Your task to perform on an android device: Check the latest 3D printers on Target. Image 0: 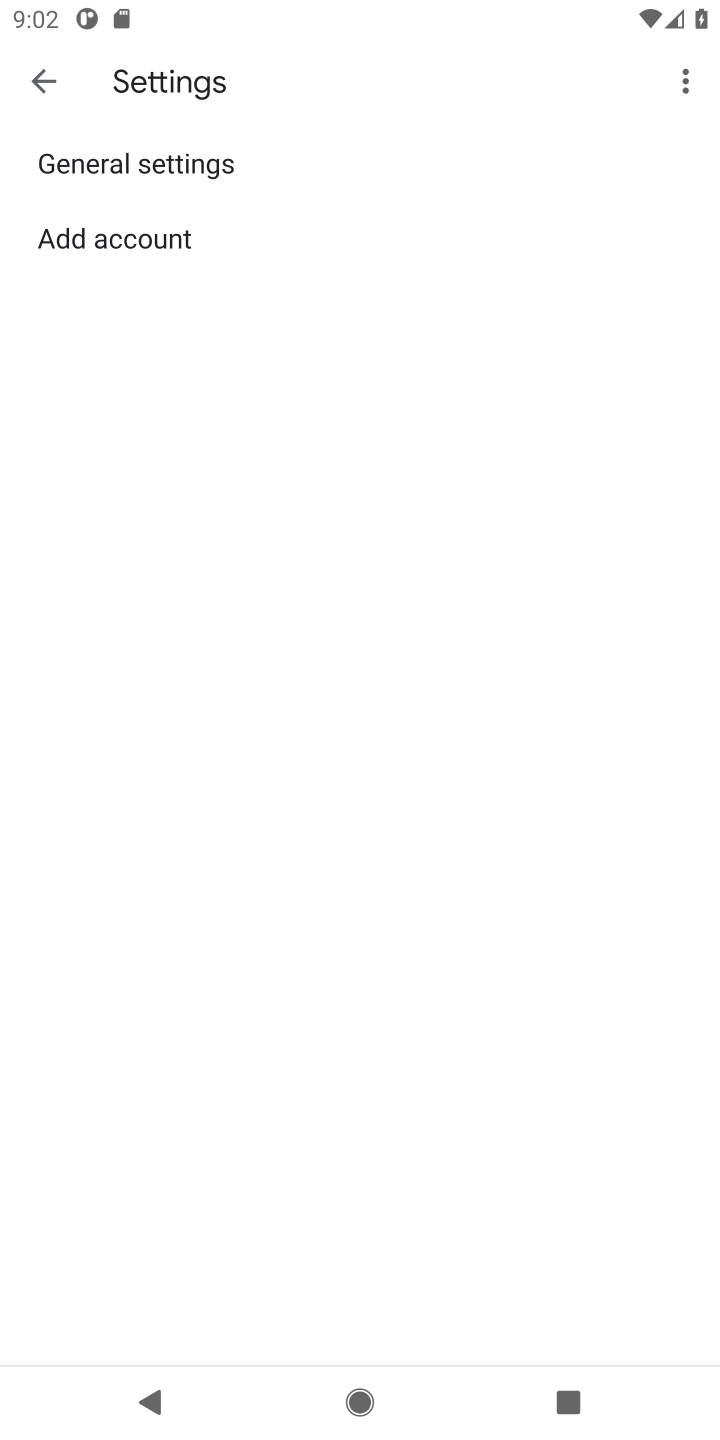
Step 0: press home button
Your task to perform on an android device: Check the latest 3D printers on Target. Image 1: 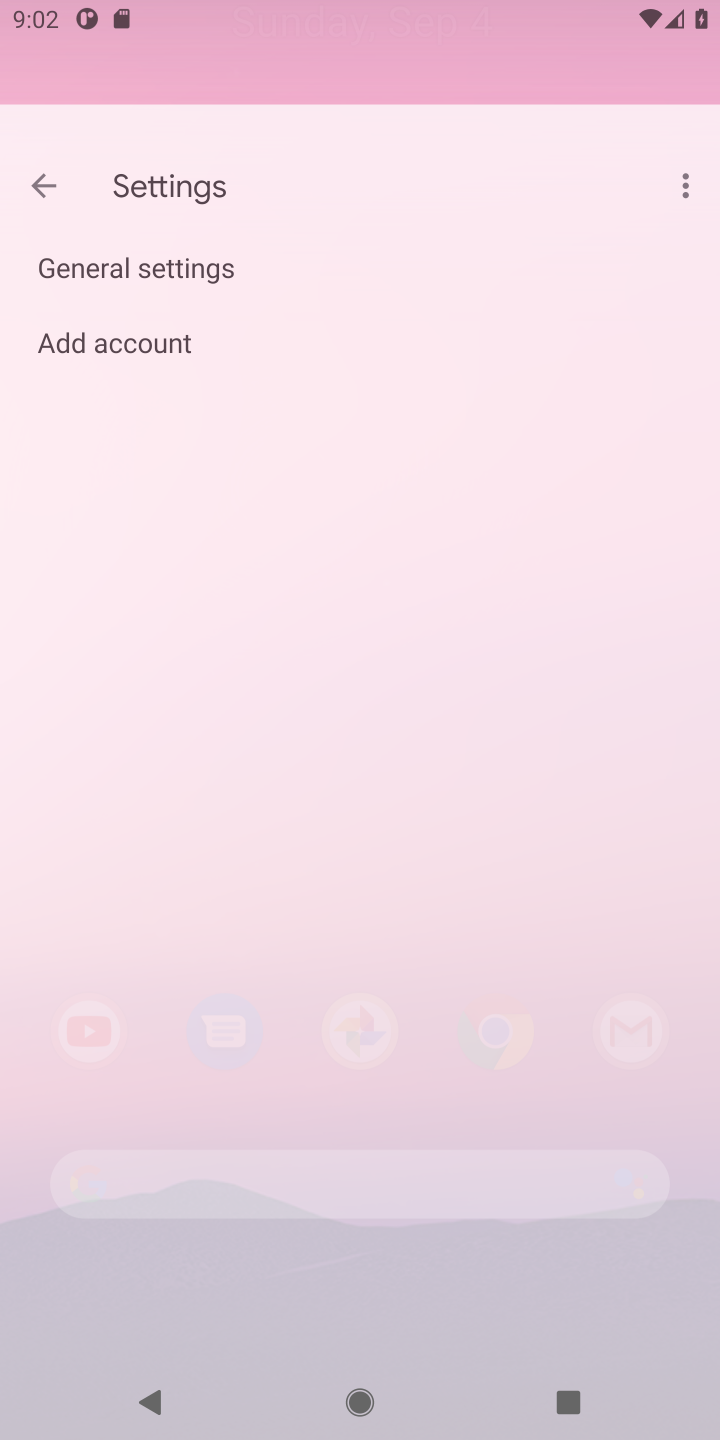
Step 1: press home button
Your task to perform on an android device: Check the latest 3D printers on Target. Image 2: 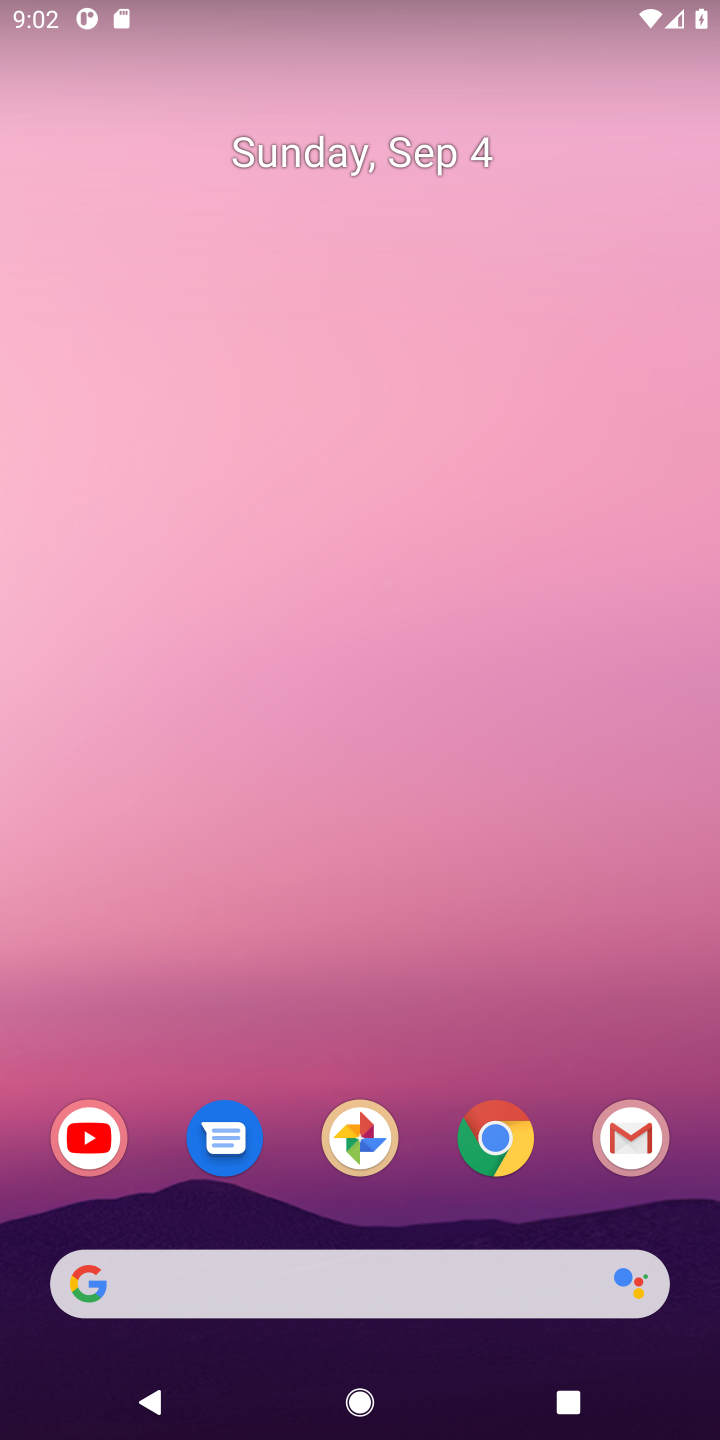
Step 2: drag from (427, 1102) to (483, 107)
Your task to perform on an android device: Check the latest 3D printers on Target. Image 3: 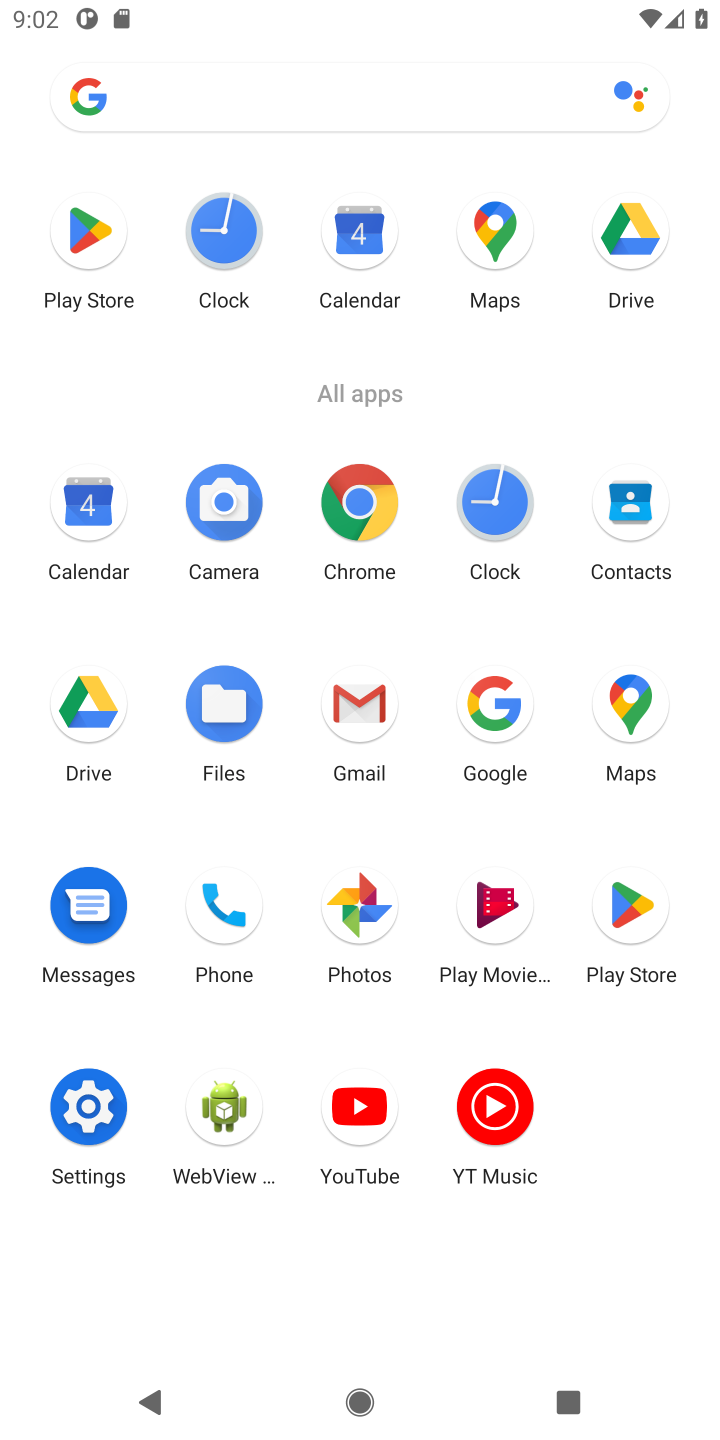
Step 3: click (363, 499)
Your task to perform on an android device: Check the latest 3D printers on Target. Image 4: 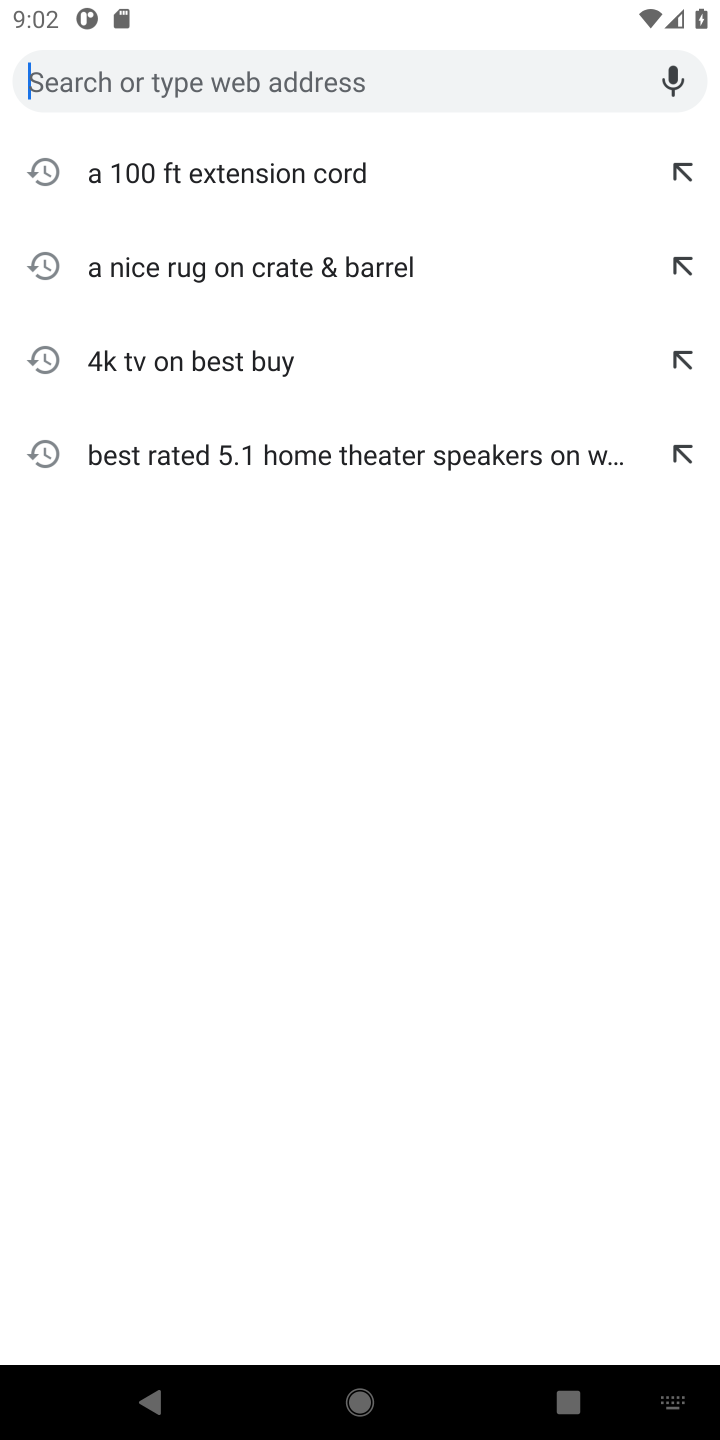
Step 4: type "latest 3D printers on Target"
Your task to perform on an android device: Check the latest 3D printers on Target. Image 5: 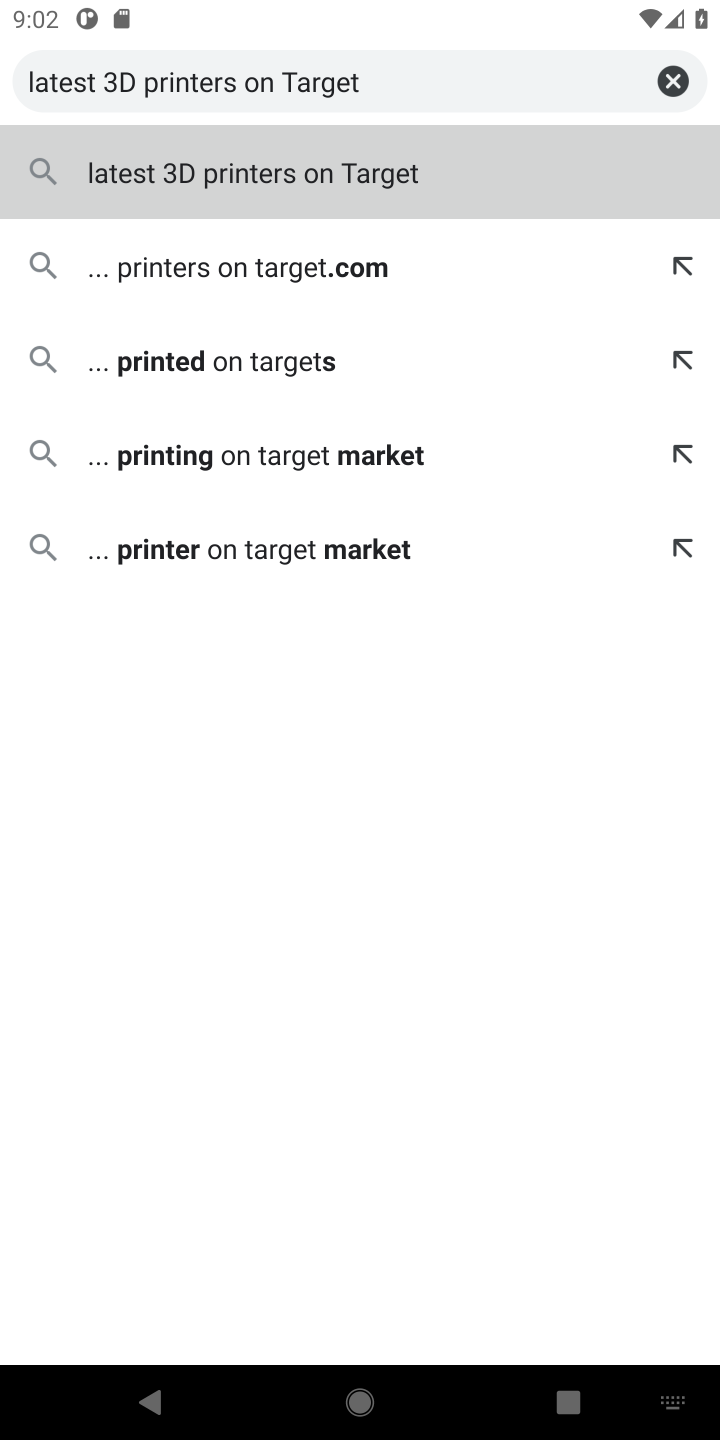
Step 5: type ""
Your task to perform on an android device: Check the latest 3D printers on Target. Image 6: 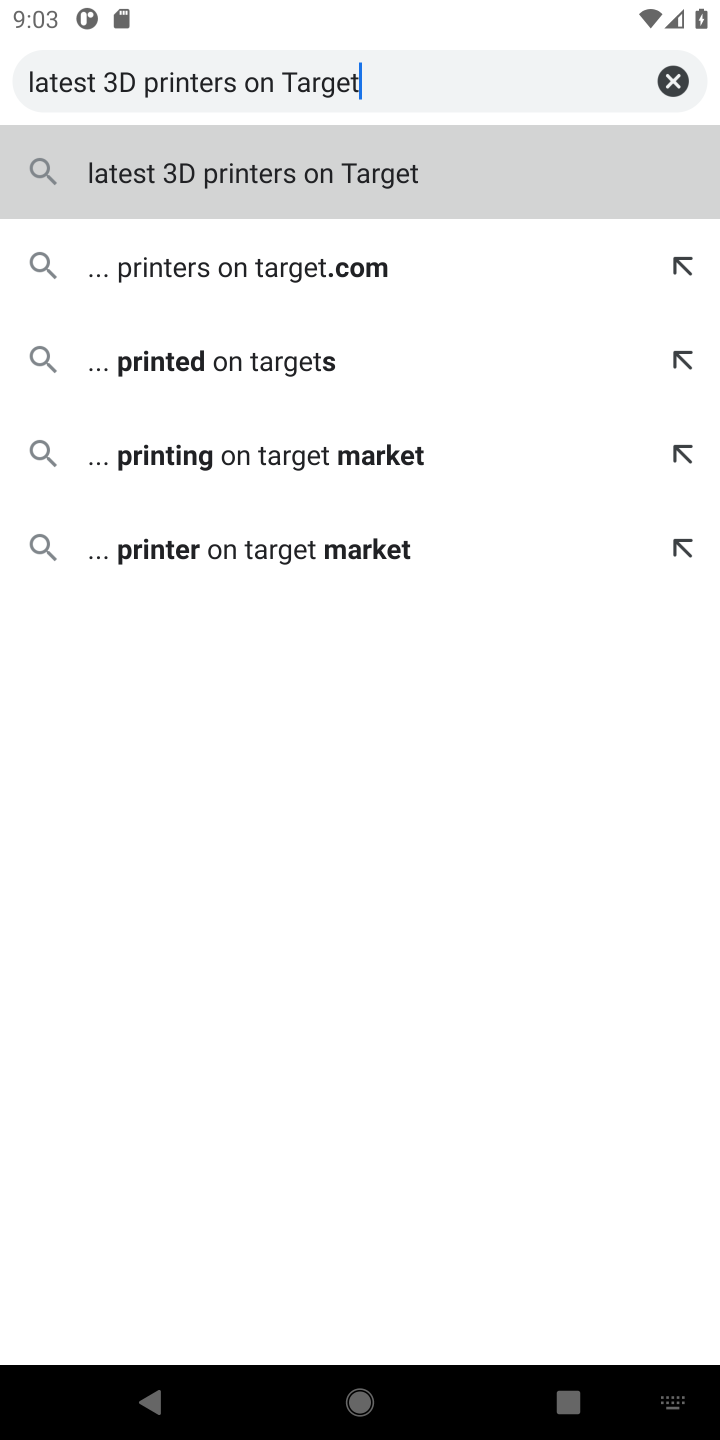
Step 6: click (267, 190)
Your task to perform on an android device: Check the latest 3D printers on Target. Image 7: 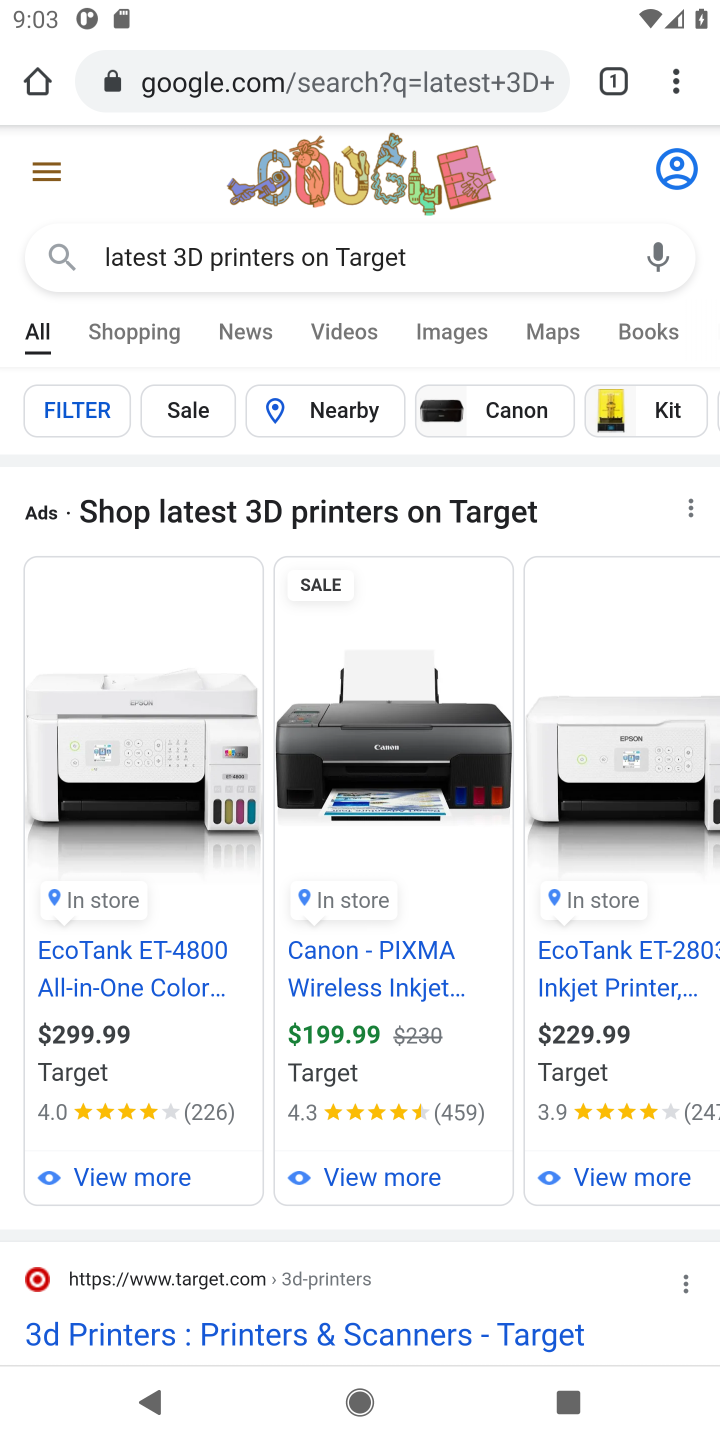
Step 7: click (305, 1326)
Your task to perform on an android device: Check the latest 3D printers on Target. Image 8: 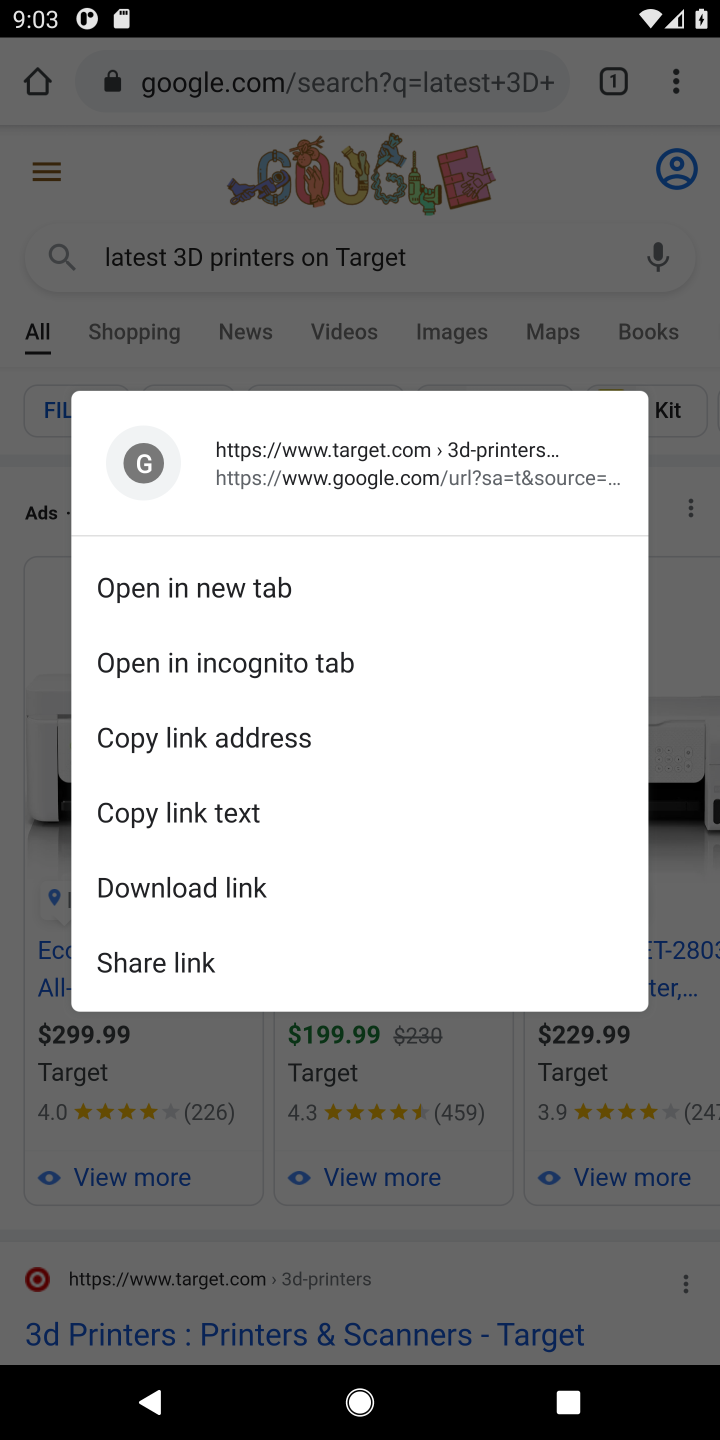
Step 8: click (354, 1338)
Your task to perform on an android device: Check the latest 3D printers on Target. Image 9: 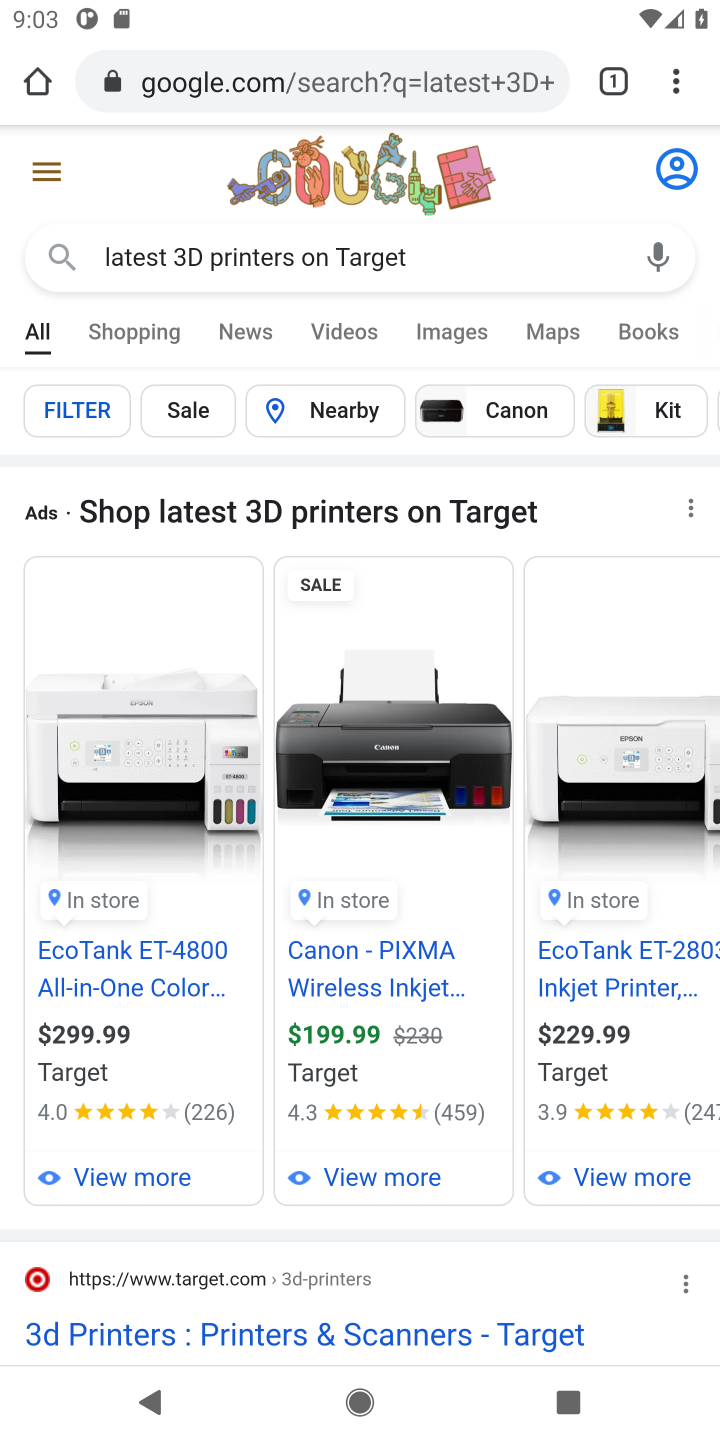
Step 9: drag from (497, 1171) to (529, 707)
Your task to perform on an android device: Check the latest 3D printers on Target. Image 10: 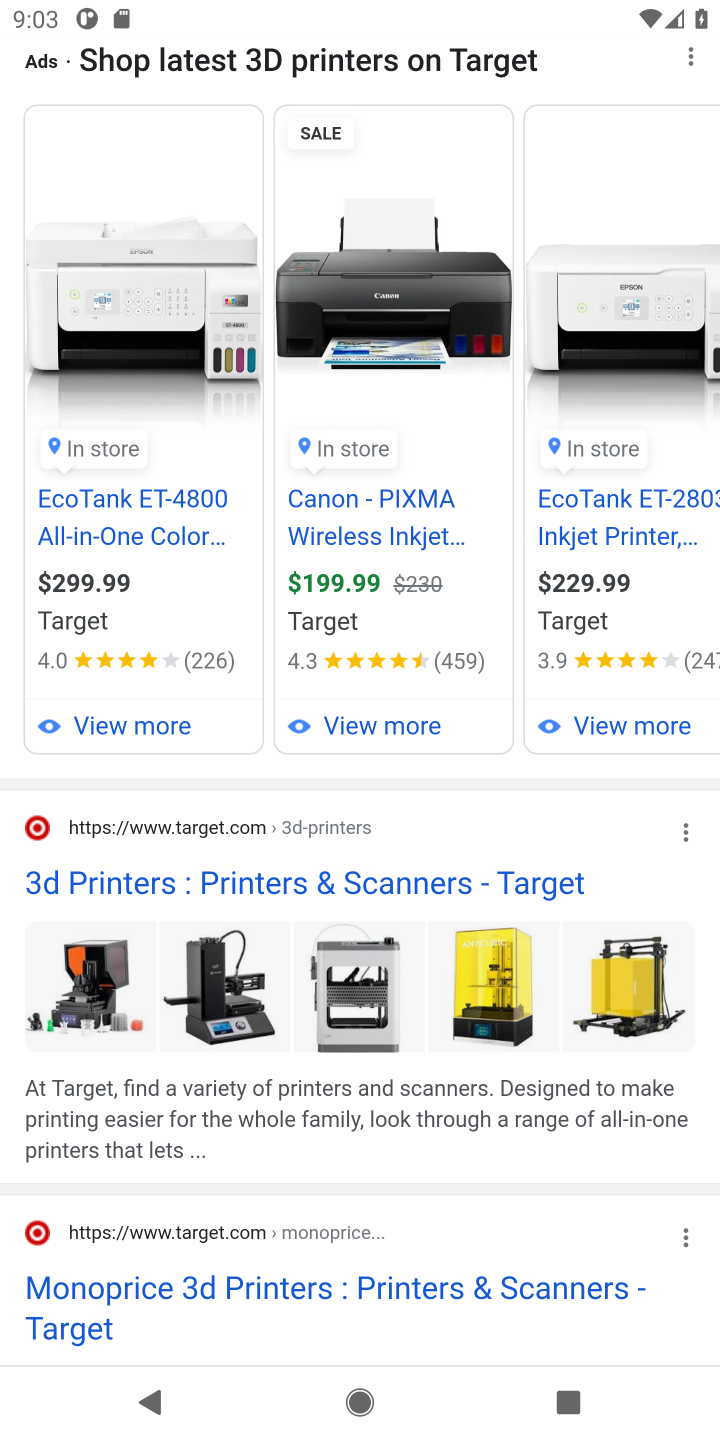
Step 10: click (149, 887)
Your task to perform on an android device: Check the latest 3D printers on Target. Image 11: 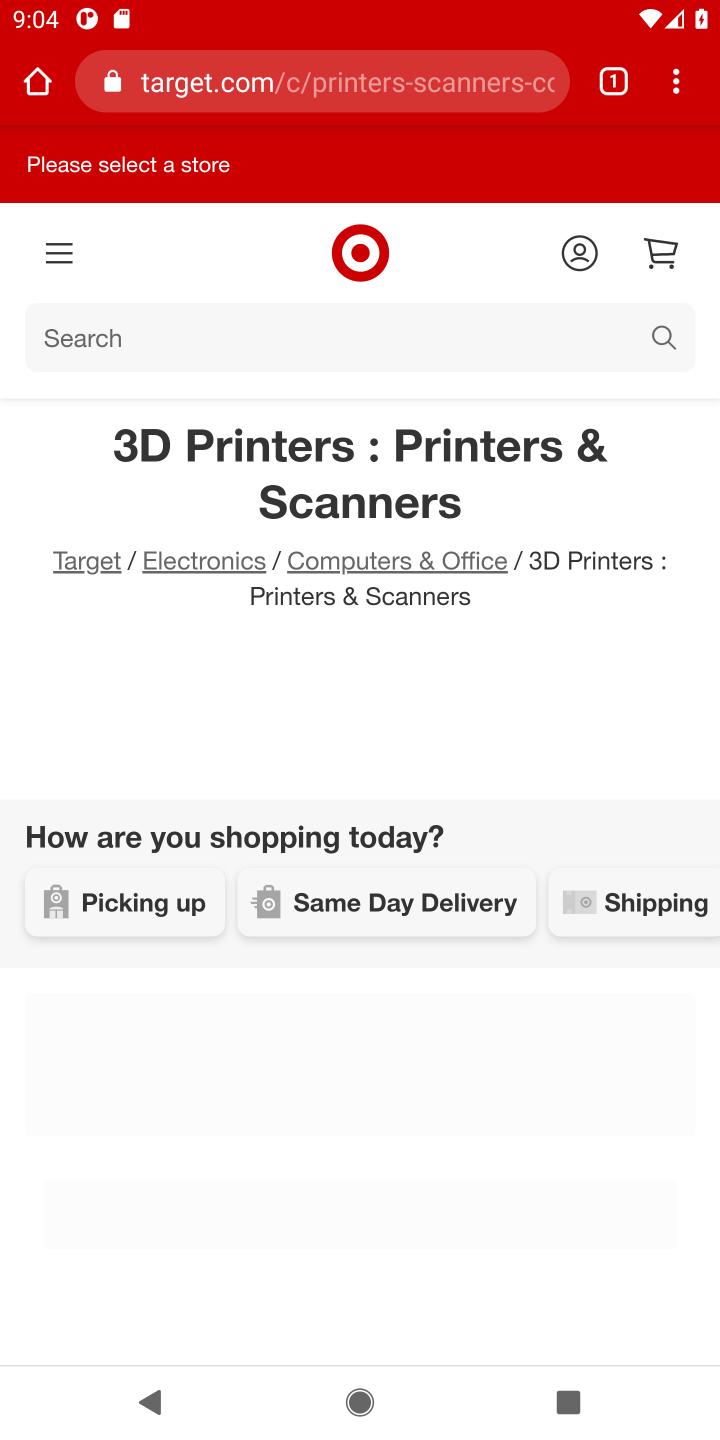
Step 11: task complete